Your task to perform on an android device: Open my contact list Image 0: 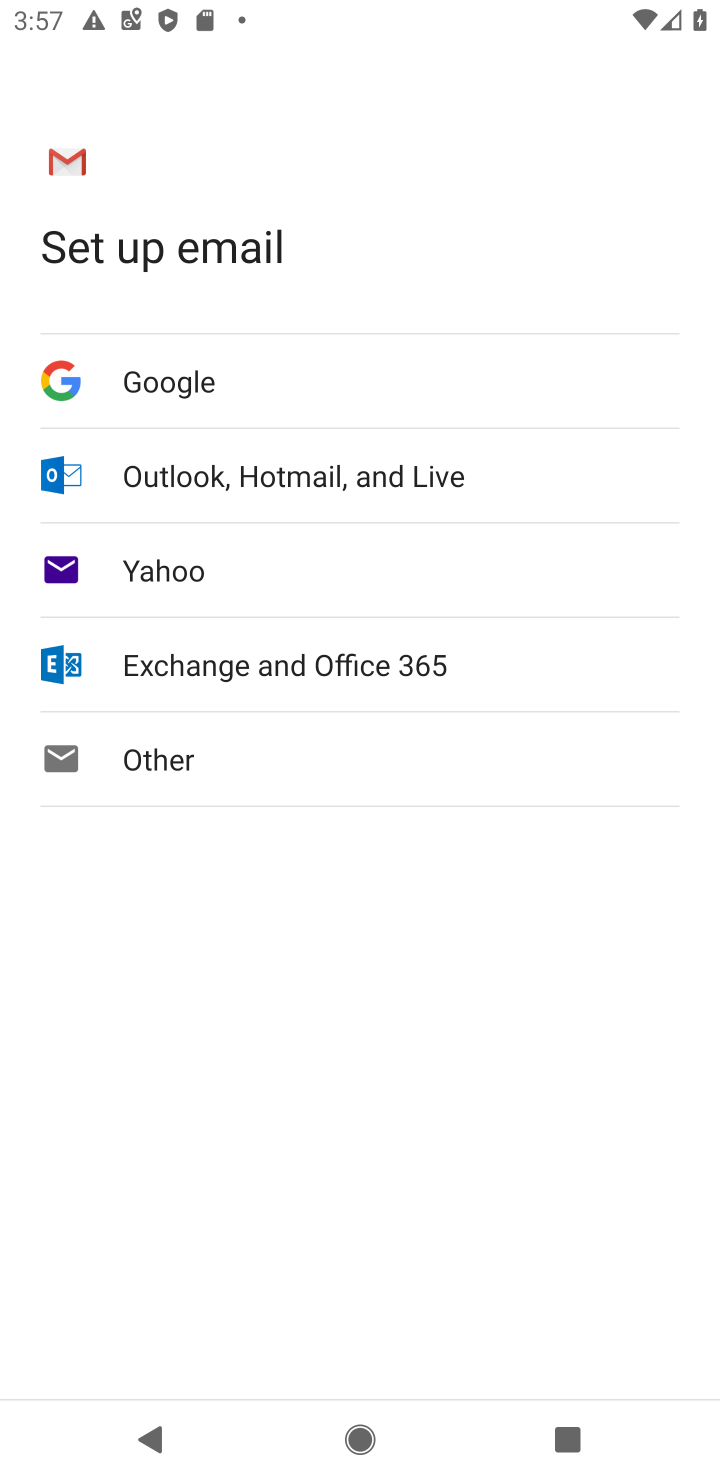
Step 0: press home button
Your task to perform on an android device: Open my contact list Image 1: 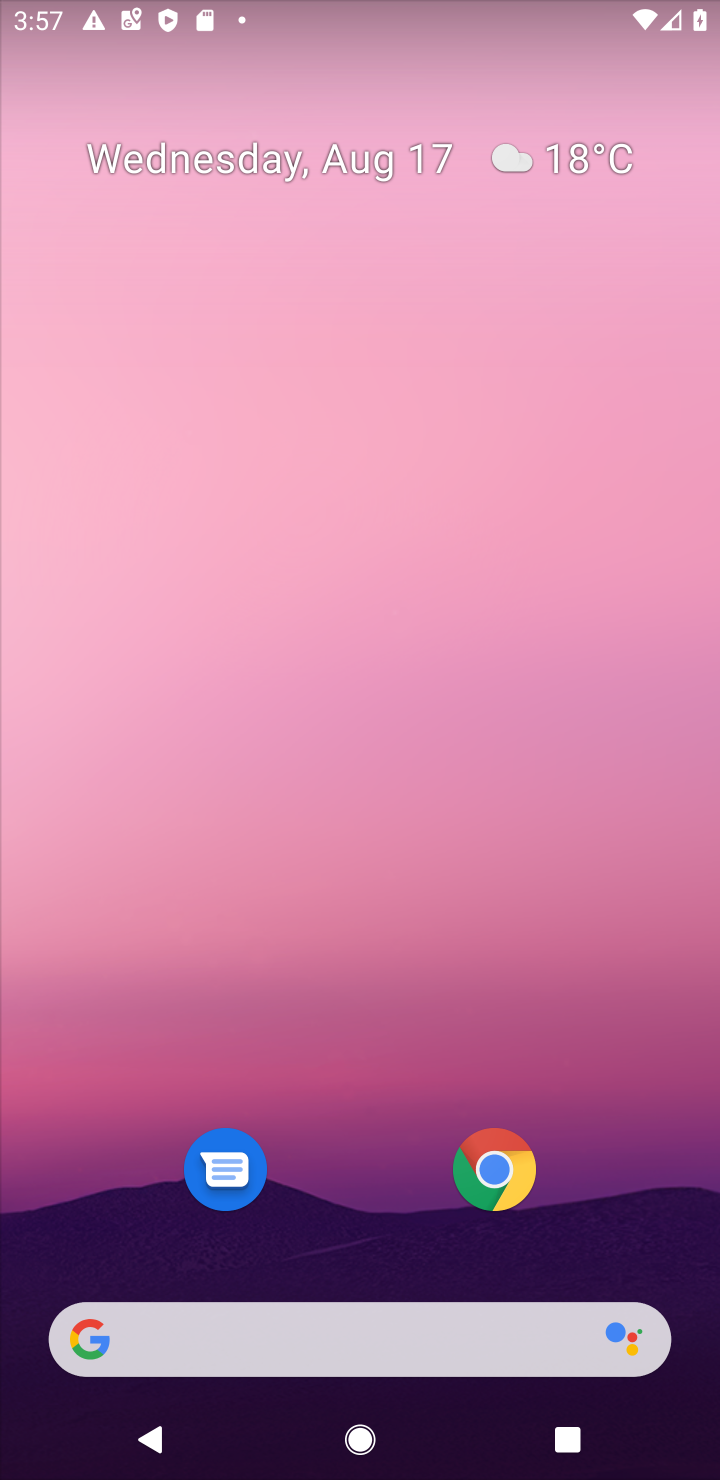
Step 1: drag from (366, 1112) to (396, 79)
Your task to perform on an android device: Open my contact list Image 2: 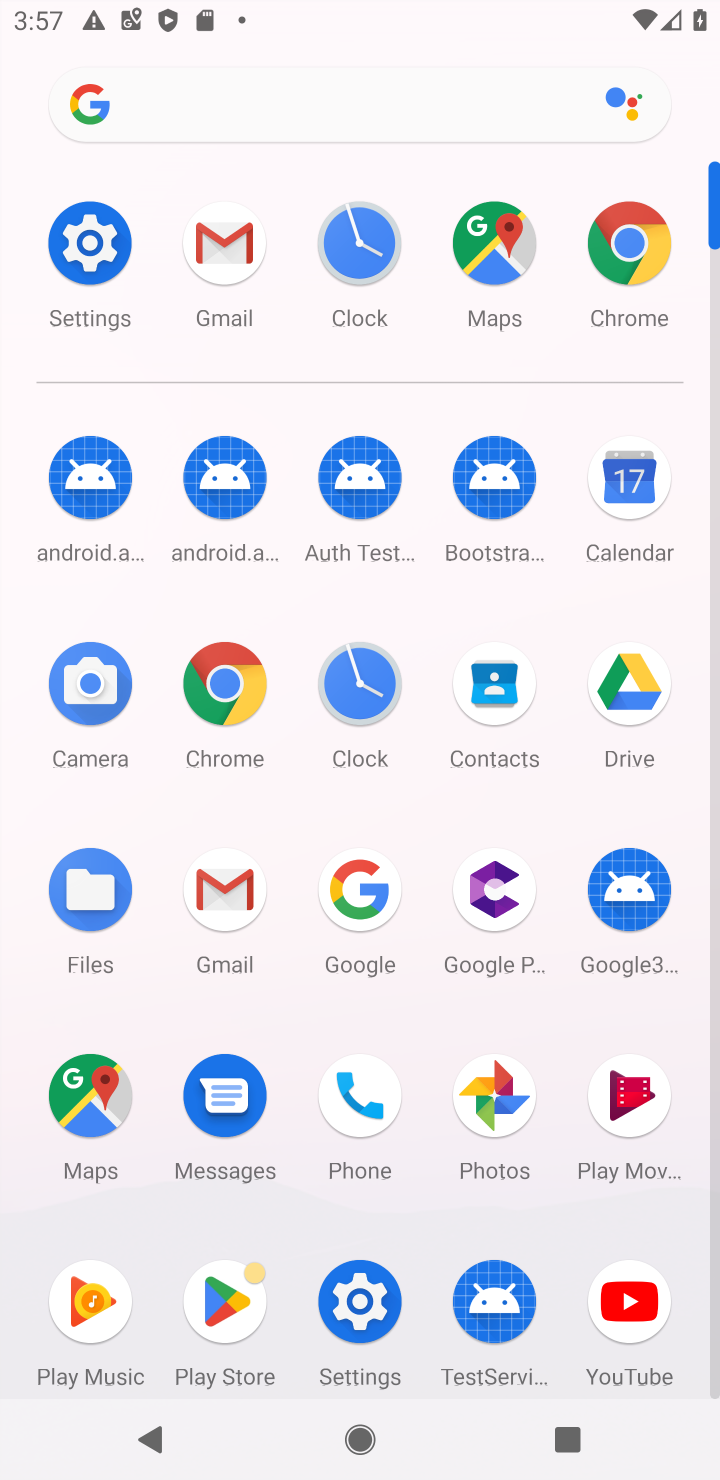
Step 2: click (506, 699)
Your task to perform on an android device: Open my contact list Image 3: 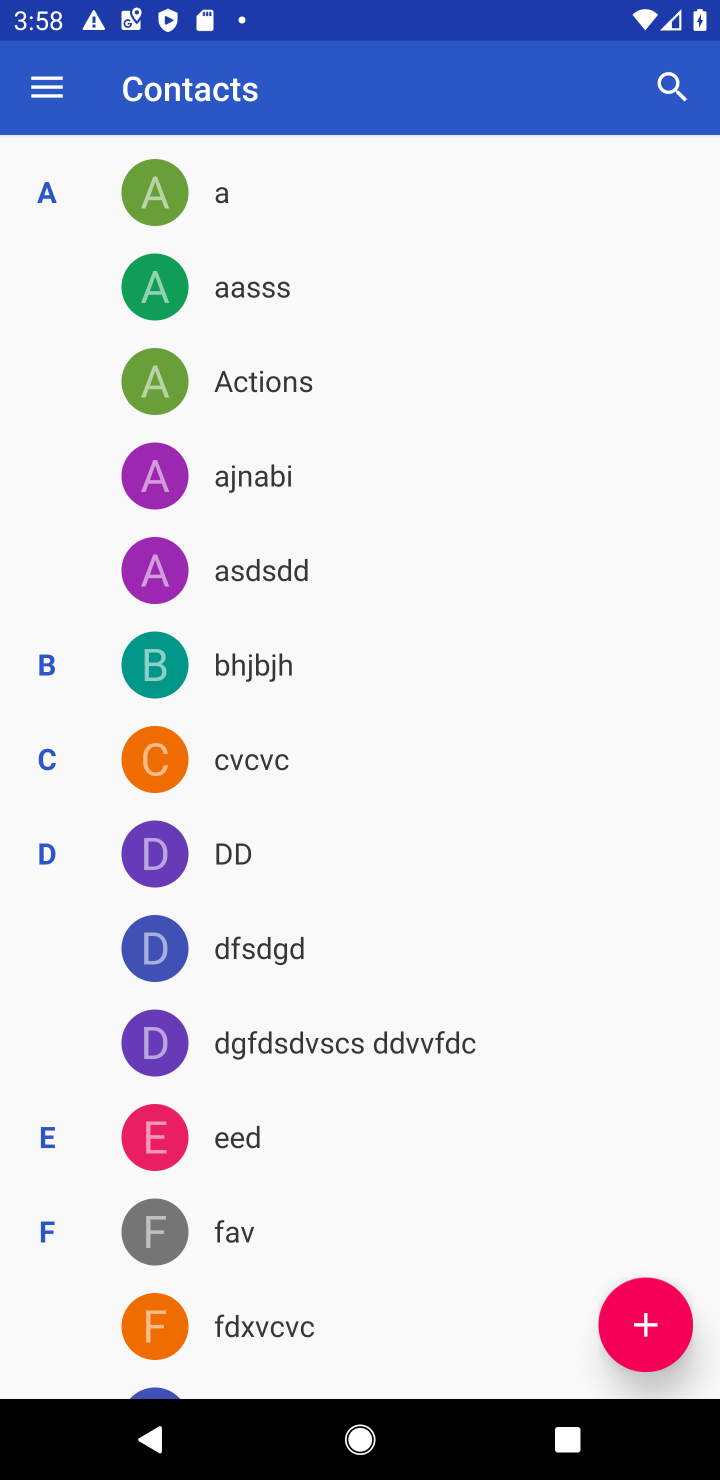
Step 3: click (649, 1321)
Your task to perform on an android device: Open my contact list Image 4: 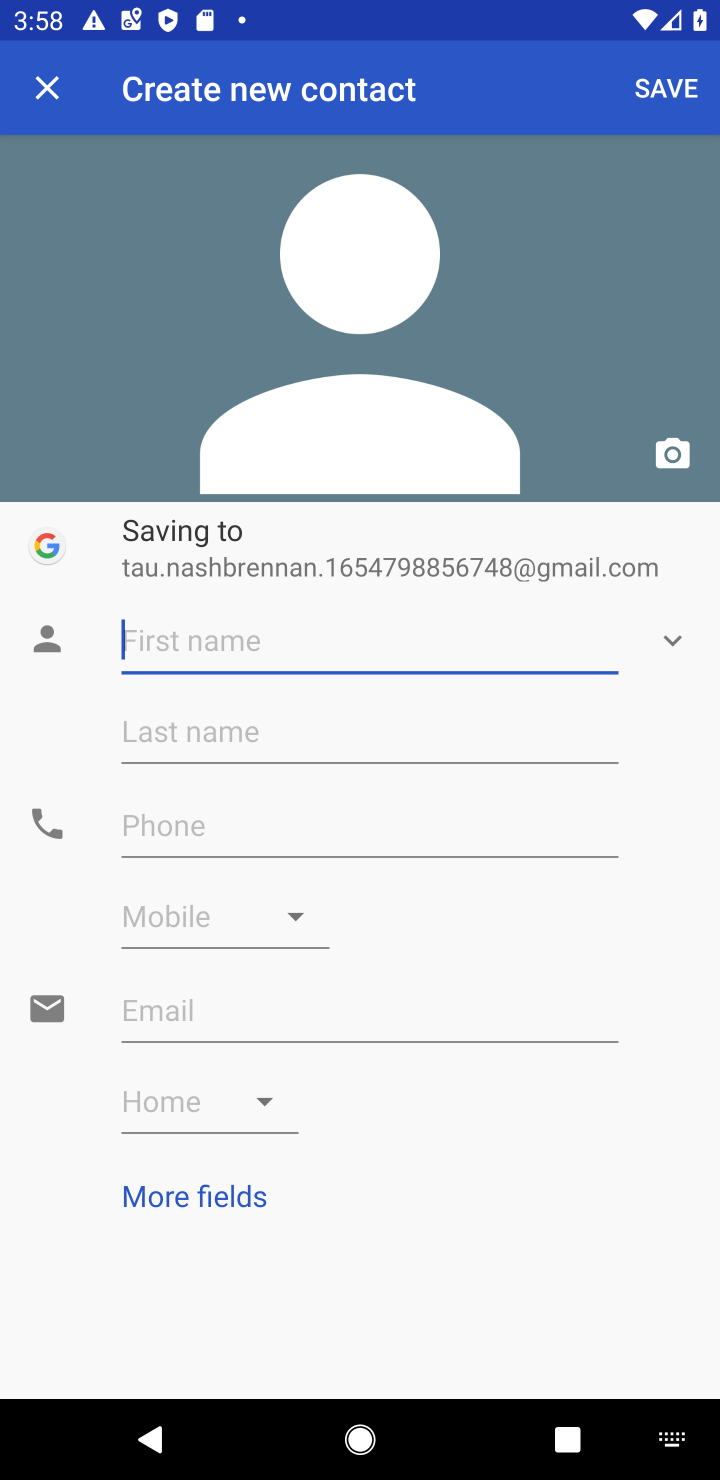
Step 4: type "kkjjl"
Your task to perform on an android device: Open my contact list Image 5: 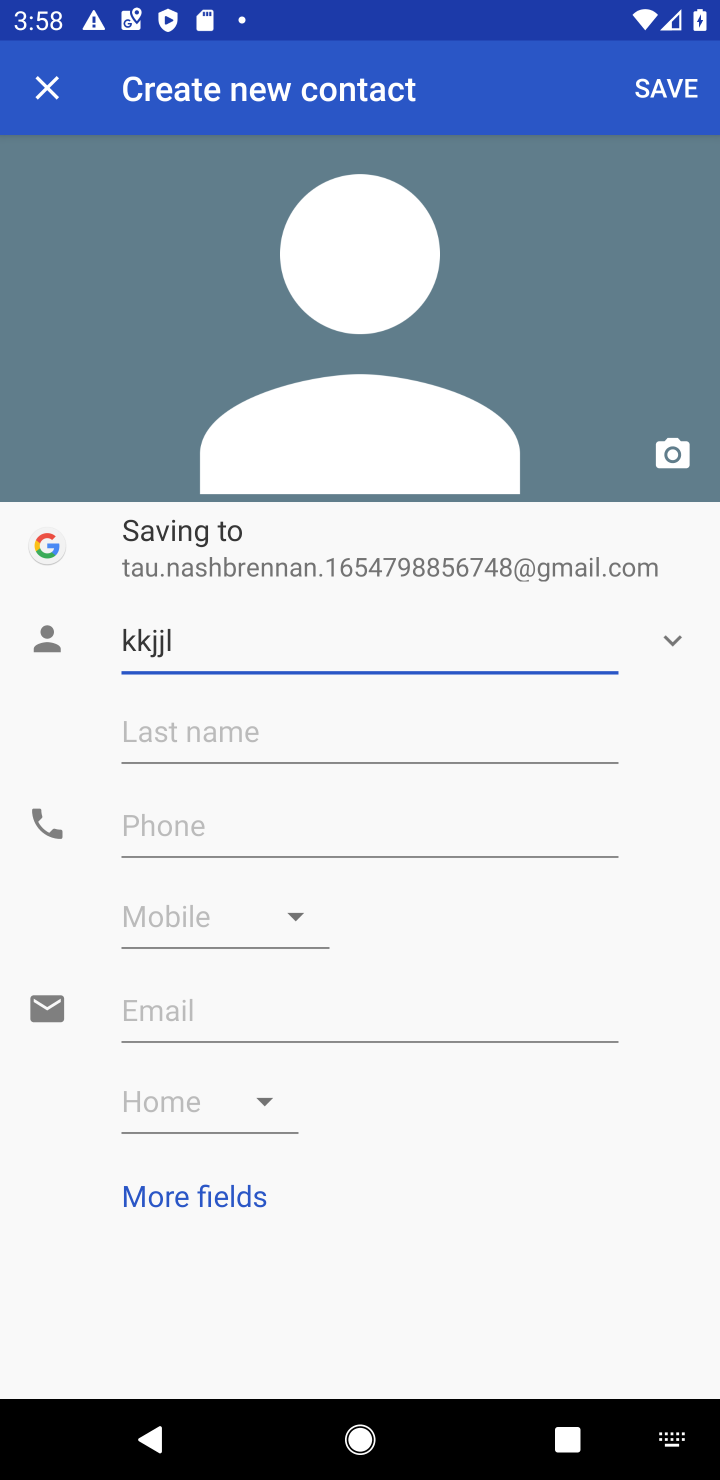
Step 5: click (247, 821)
Your task to perform on an android device: Open my contact list Image 6: 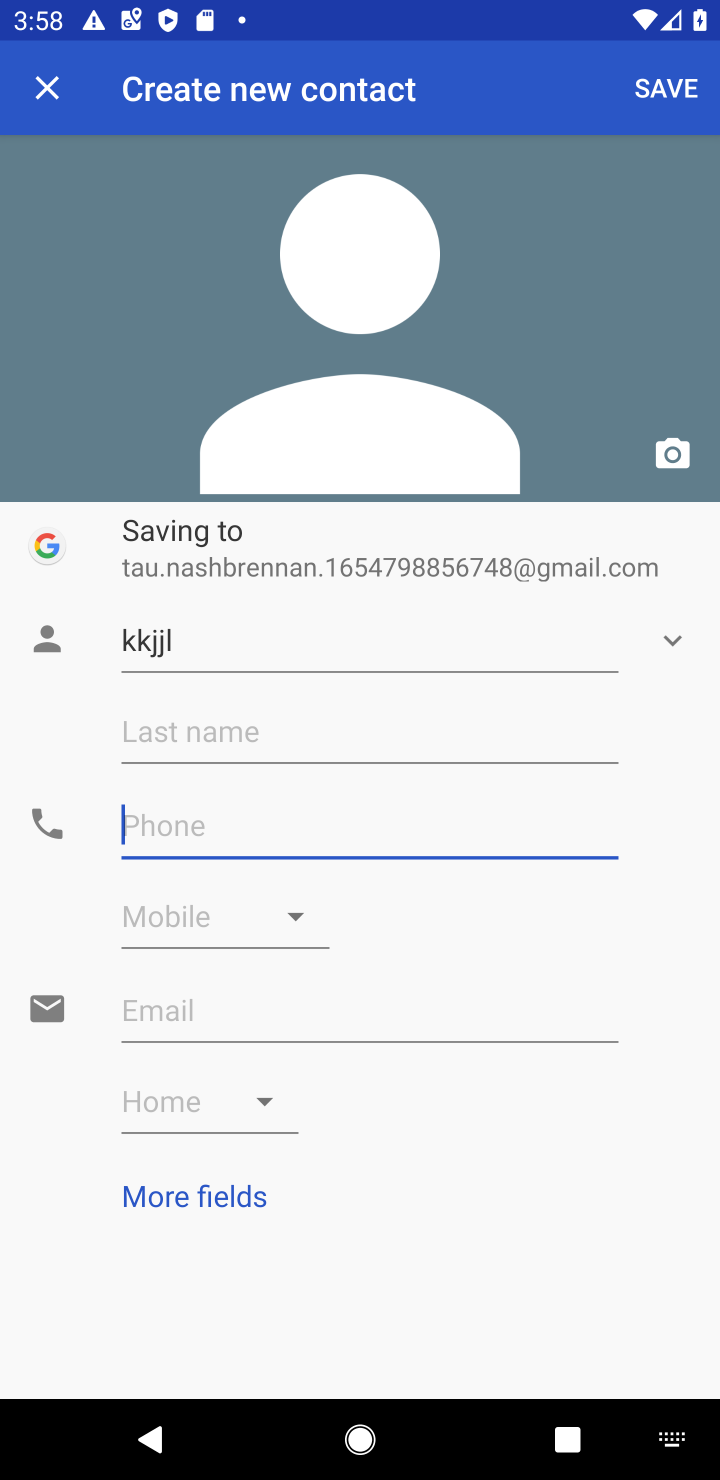
Step 6: type "0980"
Your task to perform on an android device: Open my contact list Image 7: 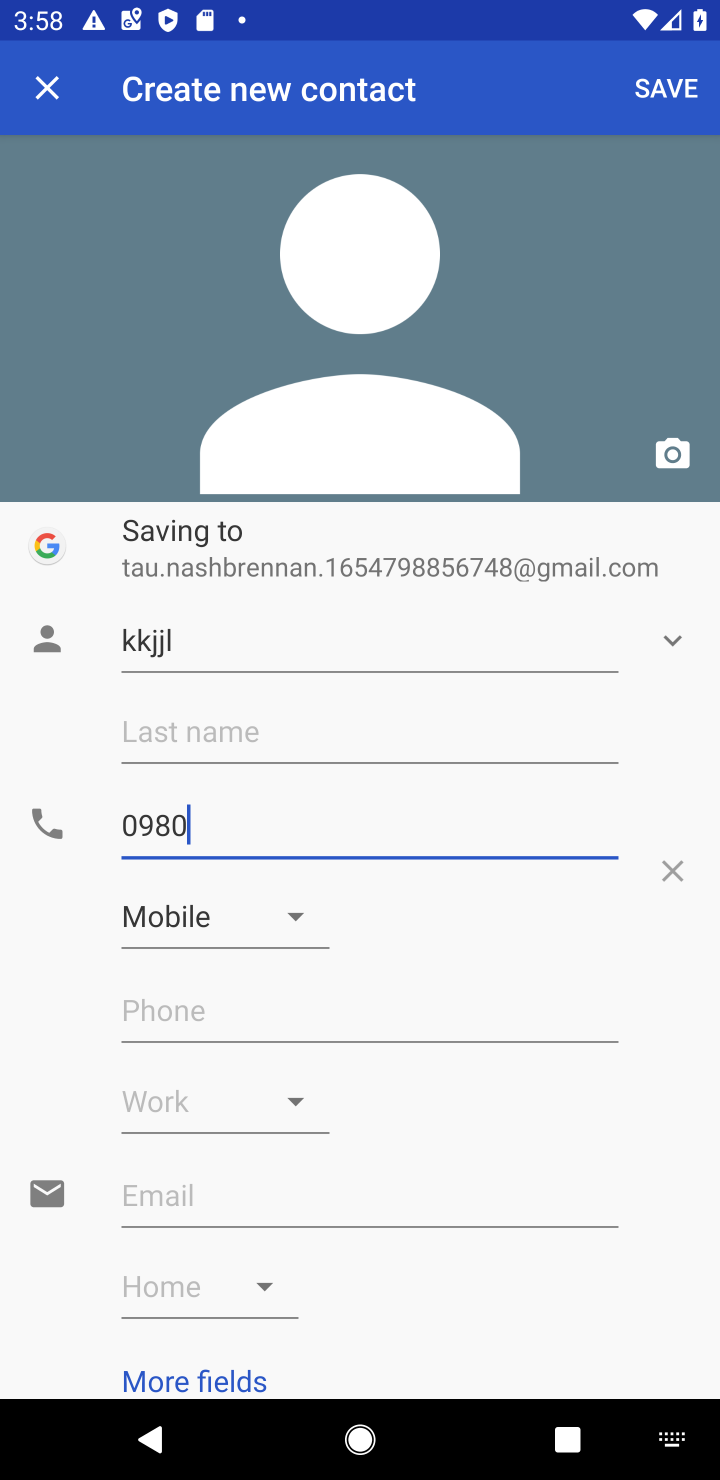
Step 7: click (675, 91)
Your task to perform on an android device: Open my contact list Image 8: 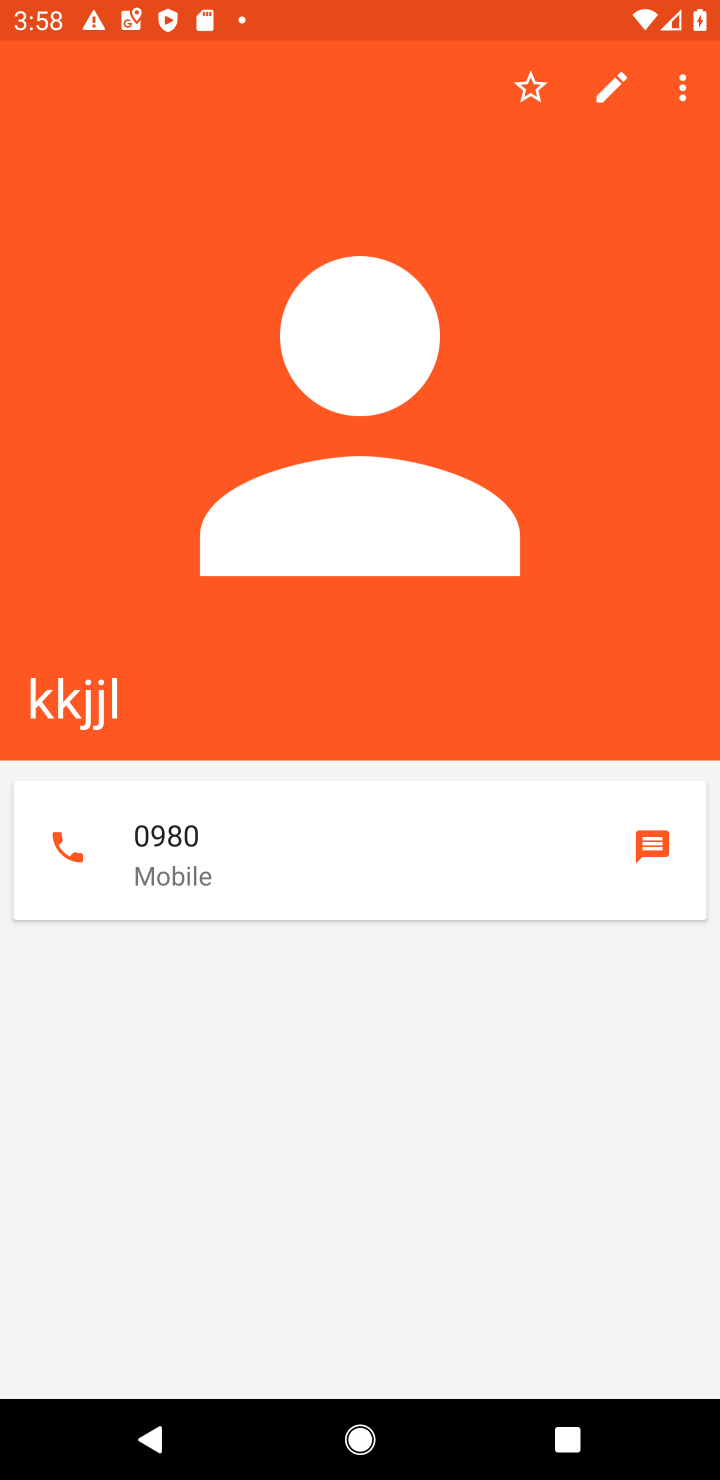
Step 8: task complete